Your task to perform on an android device: toggle priority inbox in the gmail app Image 0: 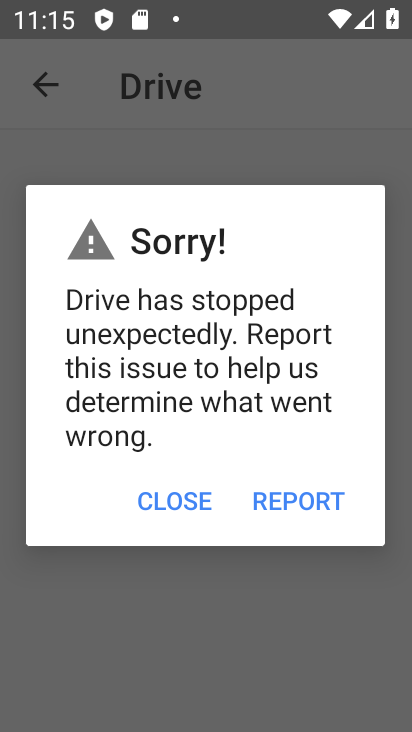
Step 0: press home button
Your task to perform on an android device: toggle priority inbox in the gmail app Image 1: 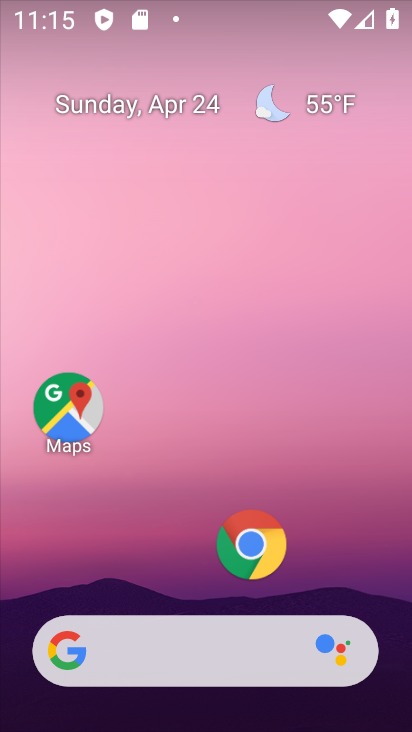
Step 1: drag from (199, 489) to (213, 254)
Your task to perform on an android device: toggle priority inbox in the gmail app Image 2: 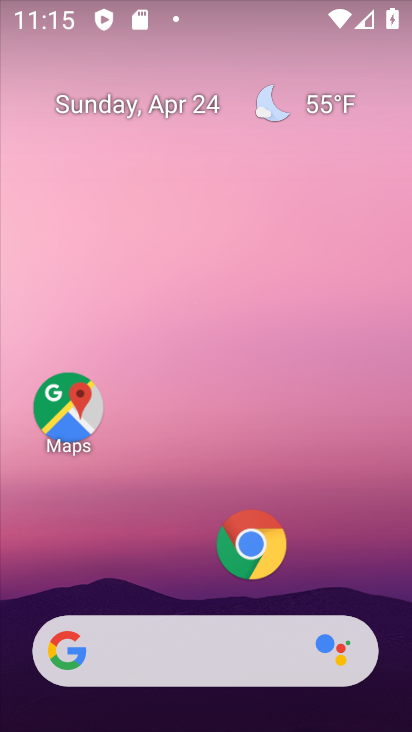
Step 2: drag from (174, 576) to (191, 190)
Your task to perform on an android device: toggle priority inbox in the gmail app Image 3: 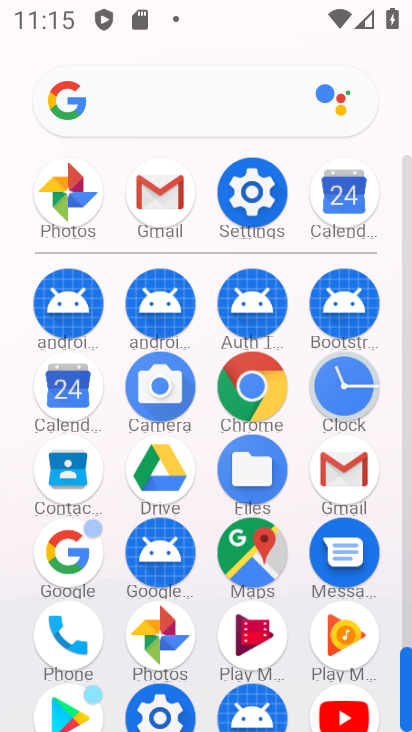
Step 3: click (172, 199)
Your task to perform on an android device: toggle priority inbox in the gmail app Image 4: 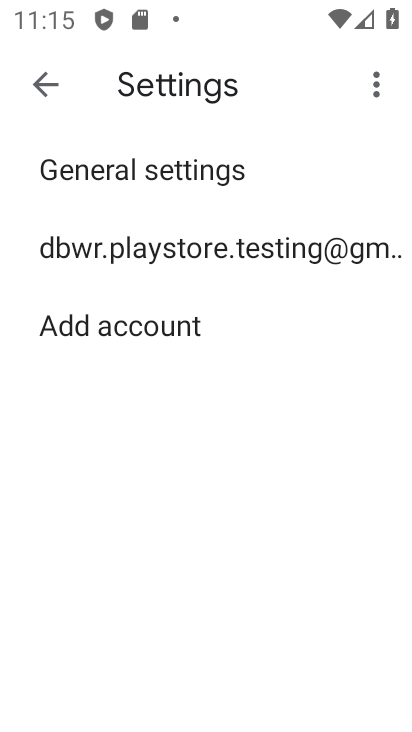
Step 4: click (151, 246)
Your task to perform on an android device: toggle priority inbox in the gmail app Image 5: 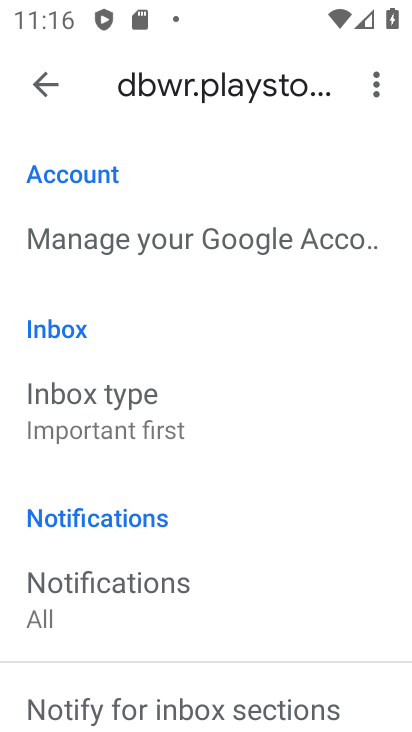
Step 5: click (119, 424)
Your task to perform on an android device: toggle priority inbox in the gmail app Image 6: 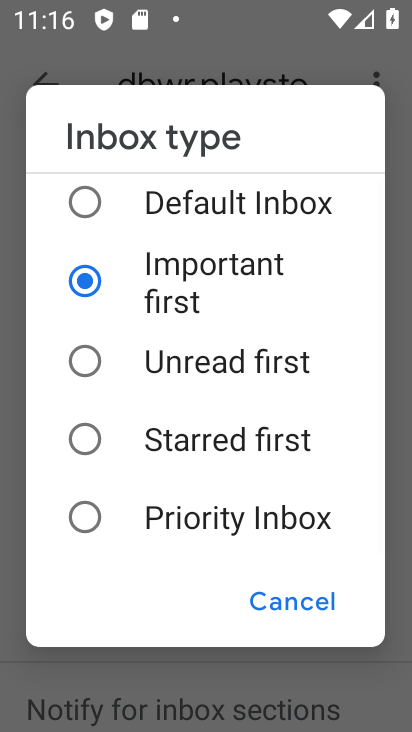
Step 6: click (126, 517)
Your task to perform on an android device: toggle priority inbox in the gmail app Image 7: 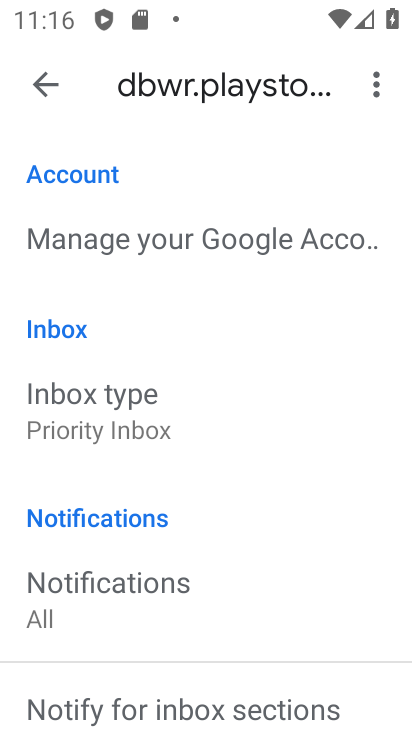
Step 7: task complete